Your task to perform on an android device: Open calendar and show me the second week of next month Image 0: 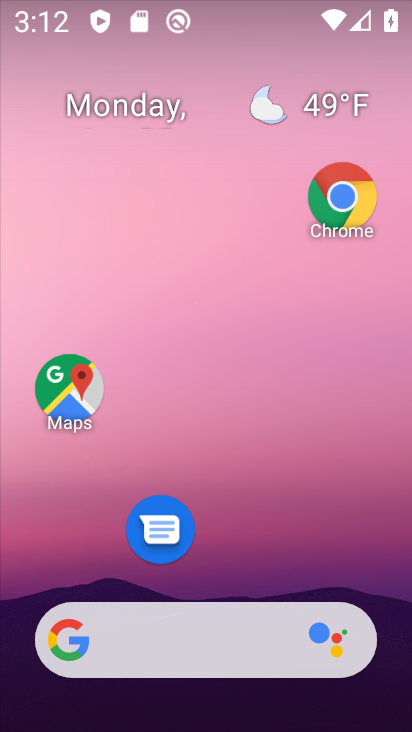
Step 0: drag from (208, 586) to (291, 30)
Your task to perform on an android device: Open calendar and show me the second week of next month Image 1: 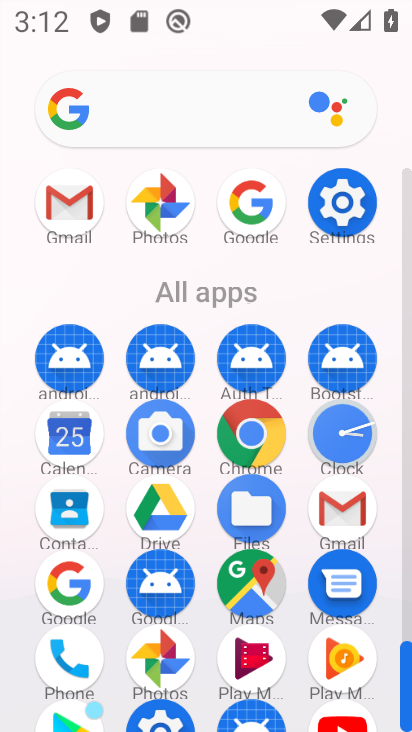
Step 1: click (81, 434)
Your task to perform on an android device: Open calendar and show me the second week of next month Image 2: 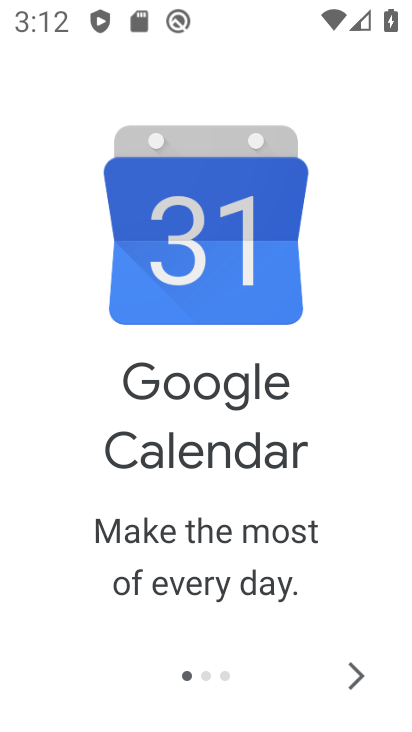
Step 2: click (355, 679)
Your task to perform on an android device: Open calendar and show me the second week of next month Image 3: 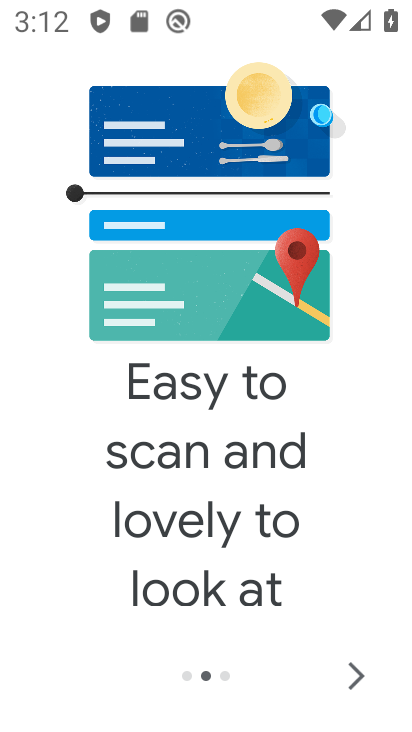
Step 3: click (355, 679)
Your task to perform on an android device: Open calendar and show me the second week of next month Image 4: 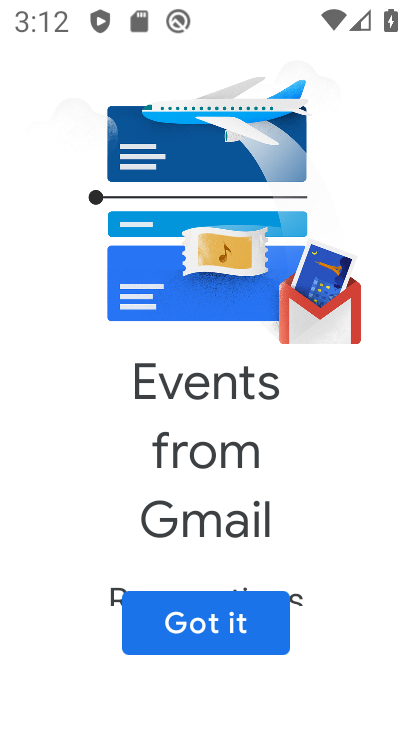
Step 4: click (355, 679)
Your task to perform on an android device: Open calendar and show me the second week of next month Image 5: 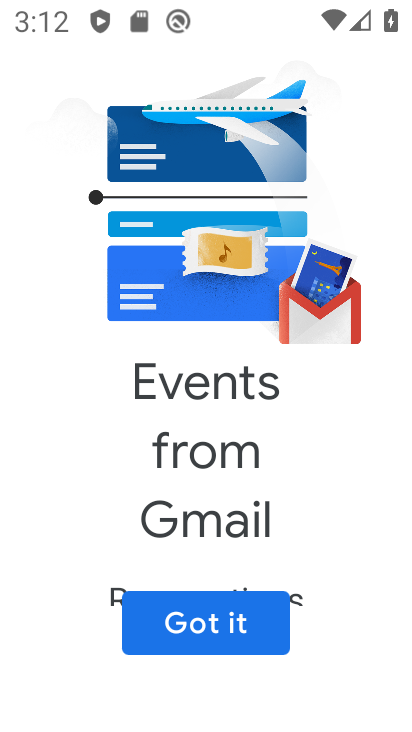
Step 5: click (256, 635)
Your task to perform on an android device: Open calendar and show me the second week of next month Image 6: 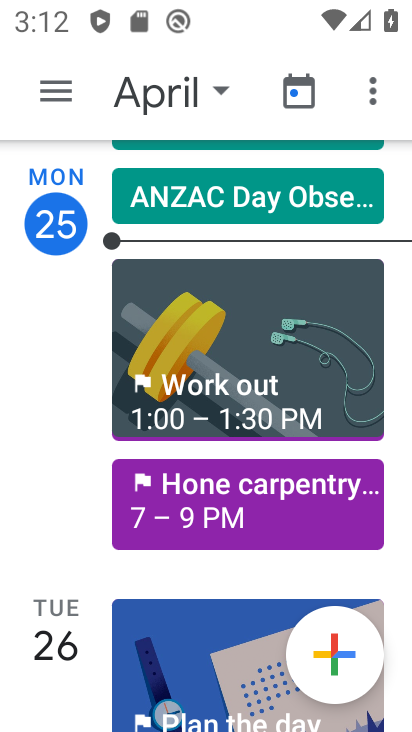
Step 6: click (149, 94)
Your task to perform on an android device: Open calendar and show me the second week of next month Image 7: 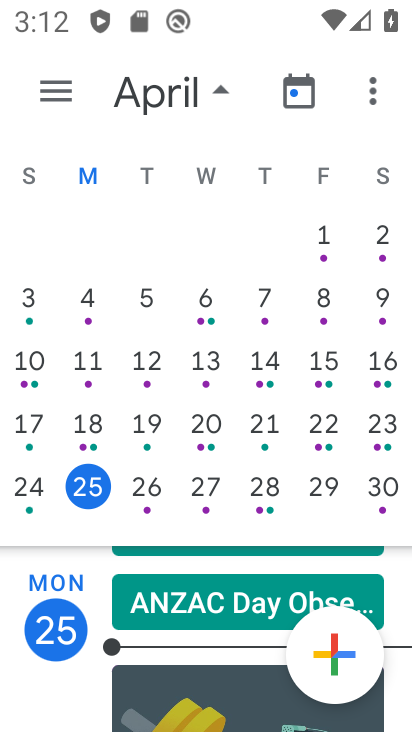
Step 7: drag from (339, 388) to (27, 362)
Your task to perform on an android device: Open calendar and show me the second week of next month Image 8: 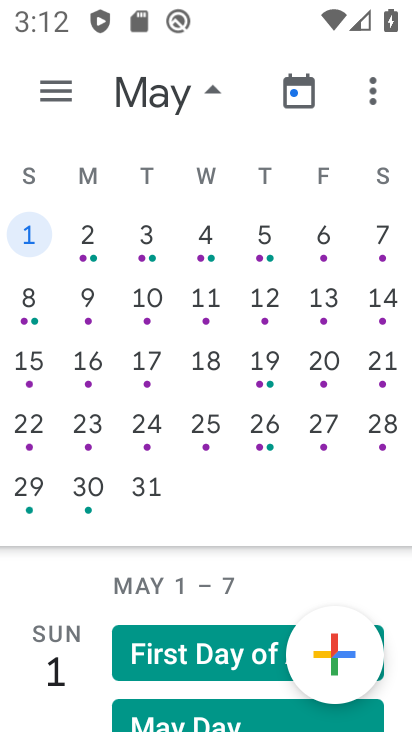
Step 8: click (21, 304)
Your task to perform on an android device: Open calendar and show me the second week of next month Image 9: 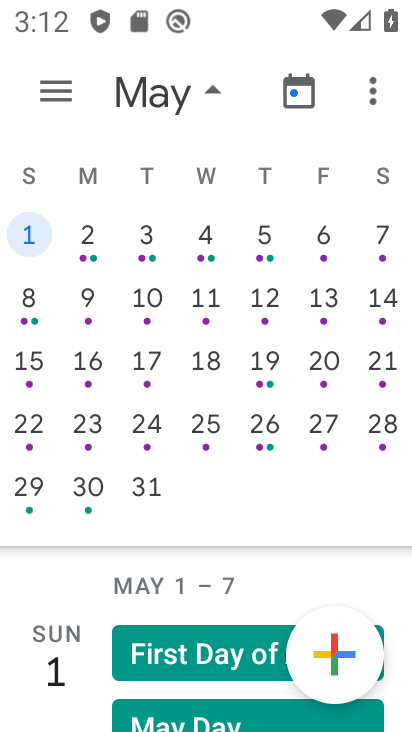
Step 9: click (25, 301)
Your task to perform on an android device: Open calendar and show me the second week of next month Image 10: 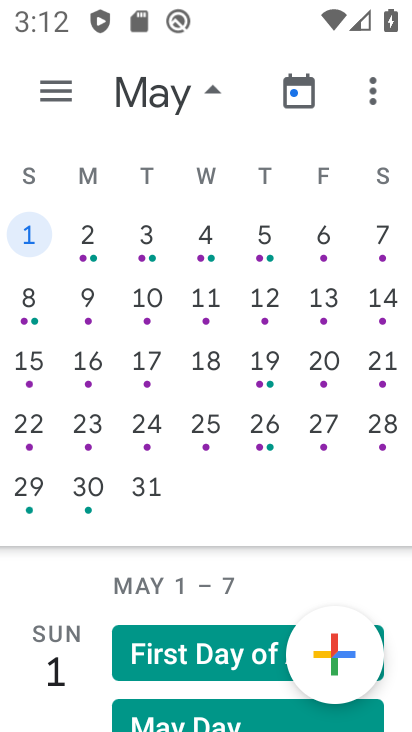
Step 10: click (26, 302)
Your task to perform on an android device: Open calendar and show me the second week of next month Image 11: 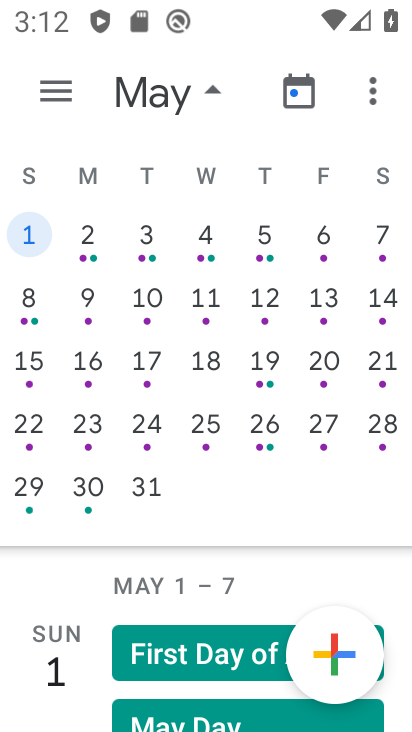
Step 11: click (35, 321)
Your task to perform on an android device: Open calendar and show me the second week of next month Image 12: 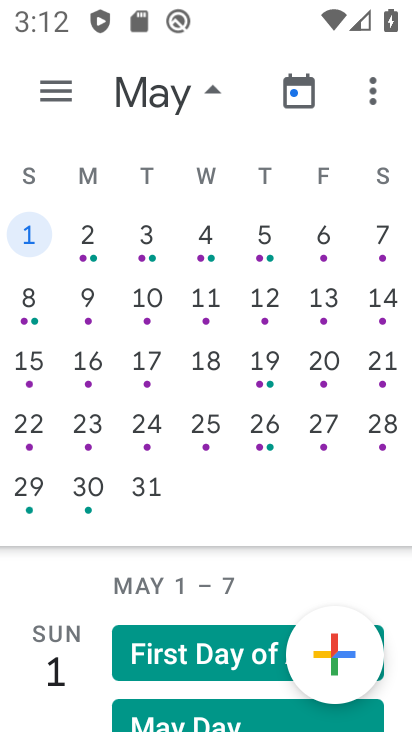
Step 12: click (29, 309)
Your task to perform on an android device: Open calendar and show me the second week of next month Image 13: 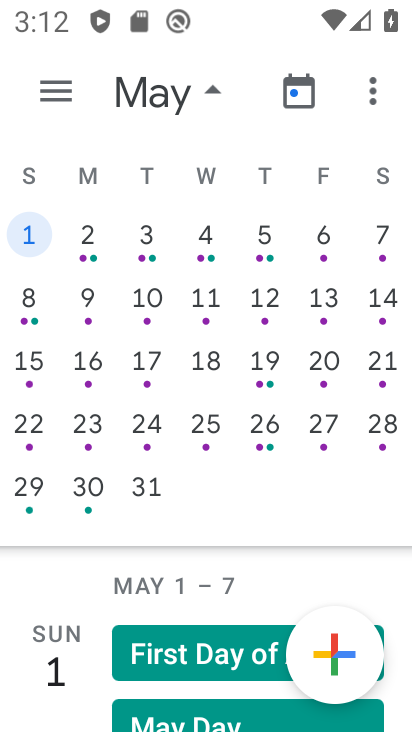
Step 13: click (29, 309)
Your task to perform on an android device: Open calendar and show me the second week of next month Image 14: 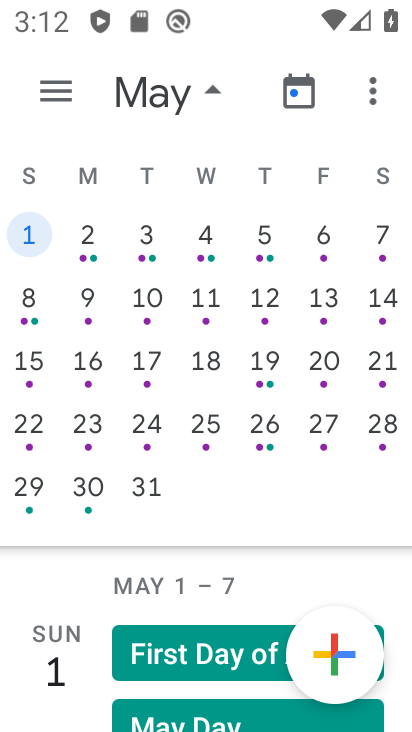
Step 14: click (30, 304)
Your task to perform on an android device: Open calendar and show me the second week of next month Image 15: 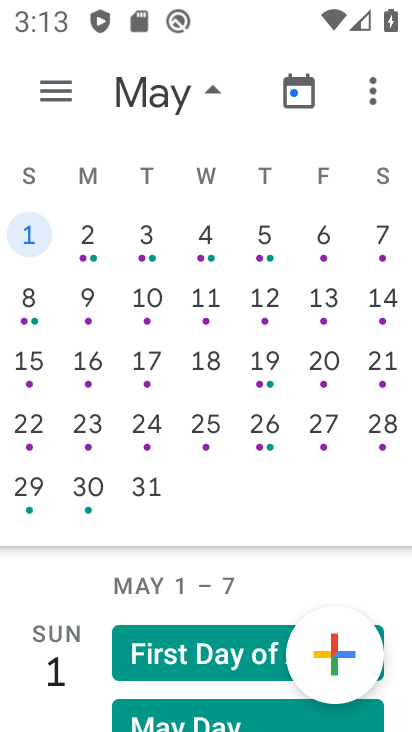
Step 15: click (30, 296)
Your task to perform on an android device: Open calendar and show me the second week of next month Image 16: 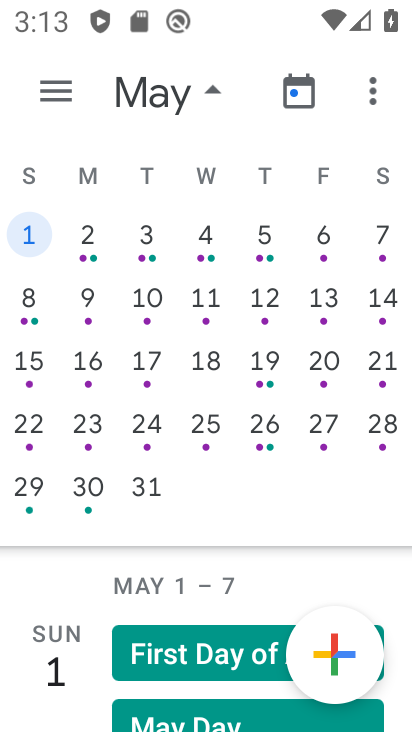
Step 16: click (24, 305)
Your task to perform on an android device: Open calendar and show me the second week of next month Image 17: 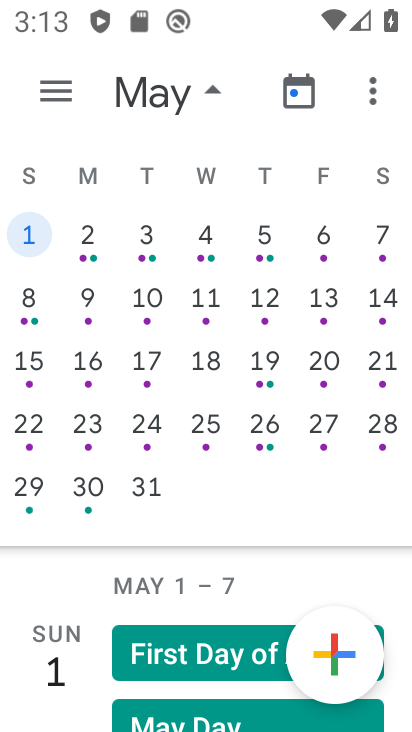
Step 17: click (26, 311)
Your task to perform on an android device: Open calendar and show me the second week of next month Image 18: 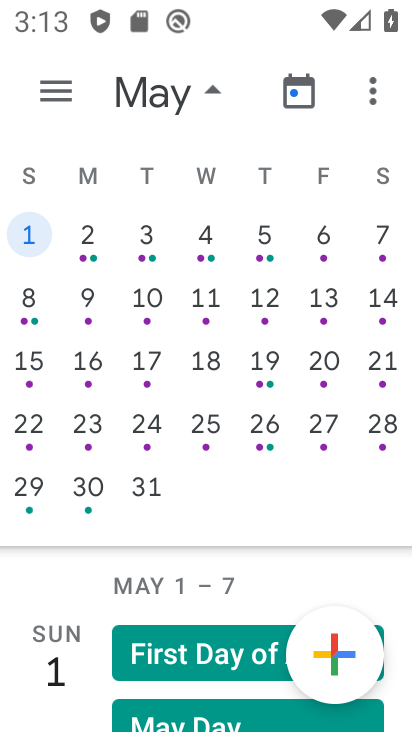
Step 18: click (32, 308)
Your task to perform on an android device: Open calendar and show me the second week of next month Image 19: 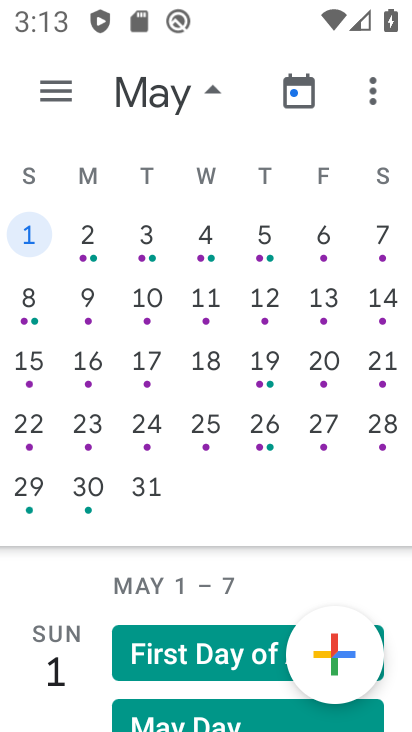
Step 19: click (32, 308)
Your task to perform on an android device: Open calendar and show me the second week of next month Image 20: 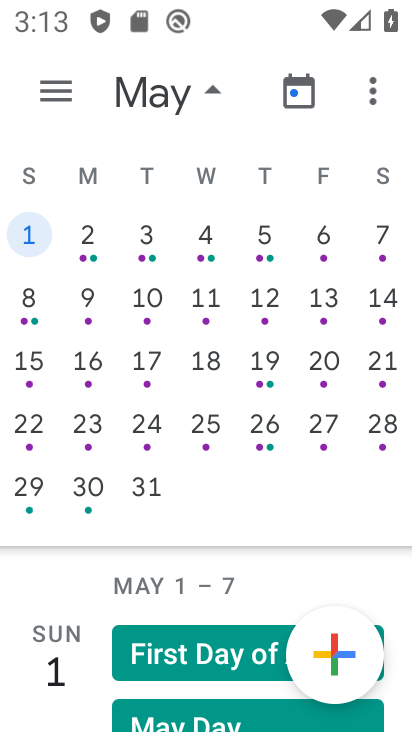
Step 20: click (30, 301)
Your task to perform on an android device: Open calendar and show me the second week of next month Image 21: 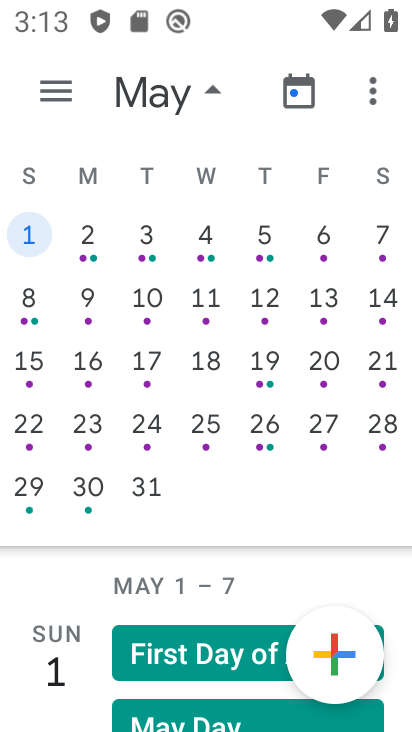
Step 21: click (32, 304)
Your task to perform on an android device: Open calendar and show me the second week of next month Image 22: 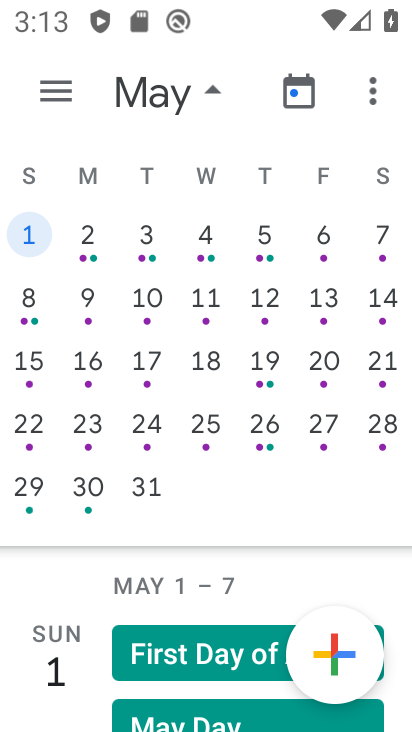
Step 22: click (70, 77)
Your task to perform on an android device: Open calendar and show me the second week of next month Image 23: 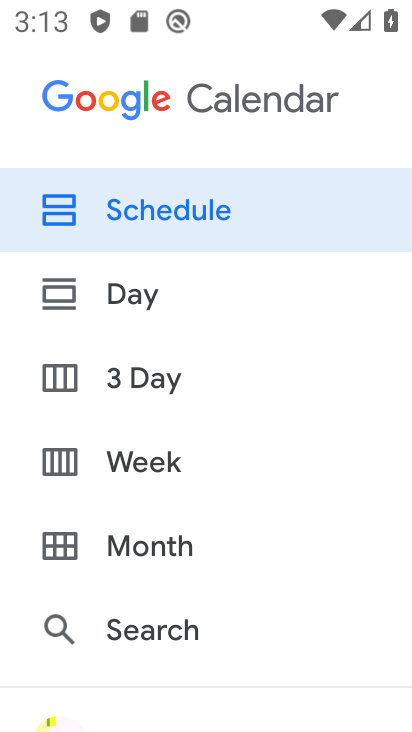
Step 23: click (166, 472)
Your task to perform on an android device: Open calendar and show me the second week of next month Image 24: 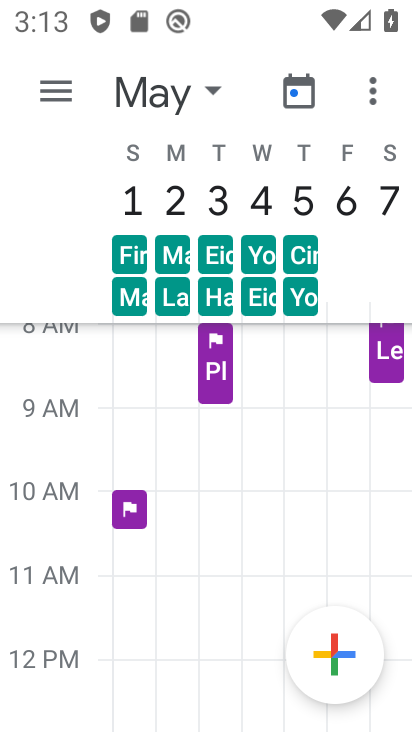
Step 24: task complete